Your task to perform on an android device: open app "Microsoft Authenticator" (install if not already installed) and go to login screen Image 0: 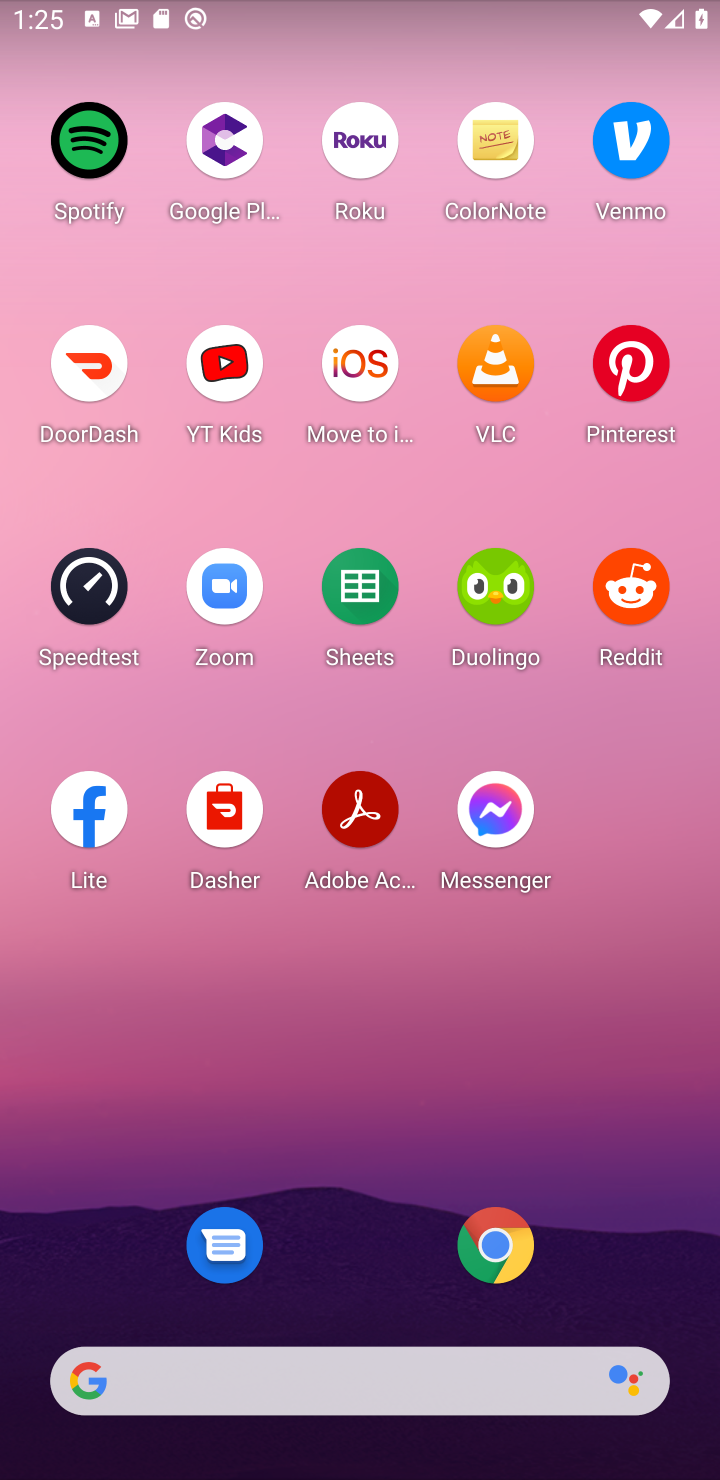
Step 0: press home button
Your task to perform on an android device: open app "Microsoft Authenticator" (install if not already installed) and go to login screen Image 1: 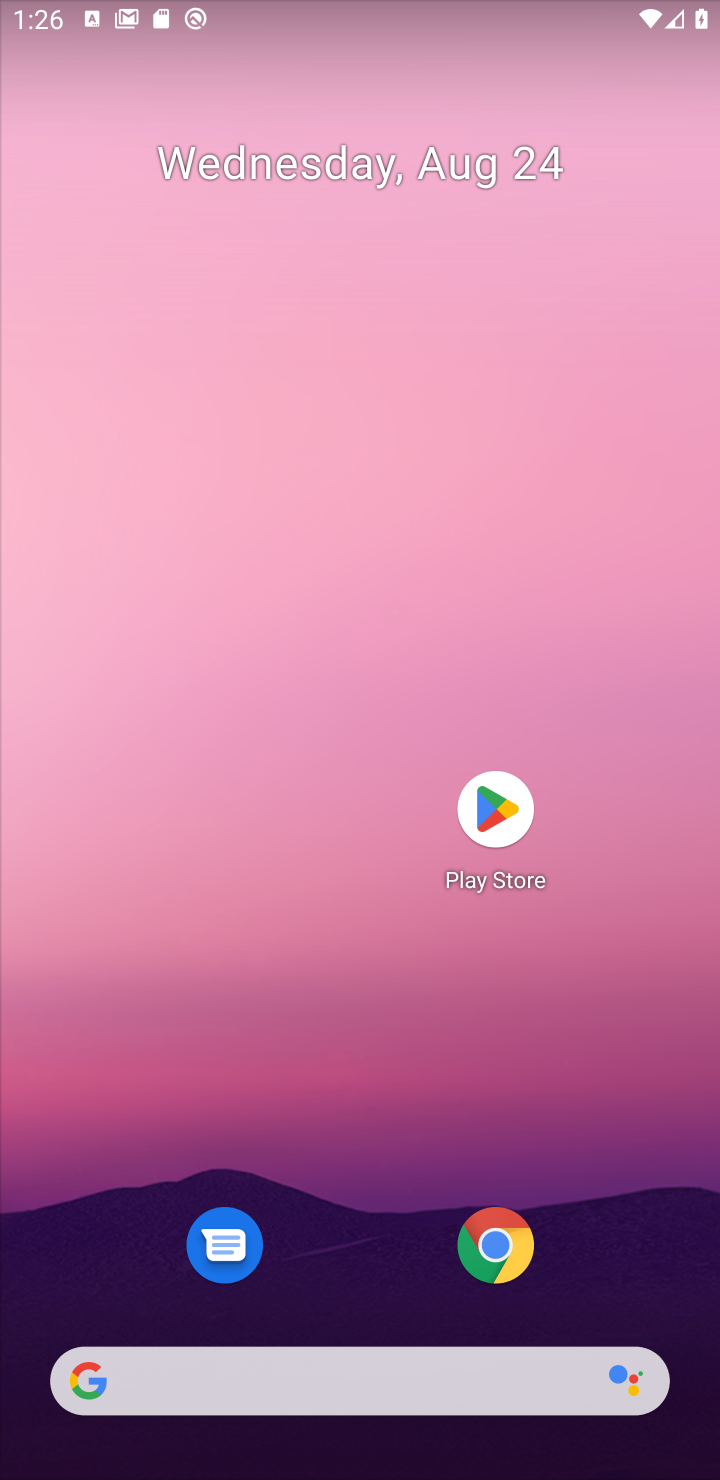
Step 1: click (495, 808)
Your task to perform on an android device: open app "Microsoft Authenticator" (install if not already installed) and go to login screen Image 2: 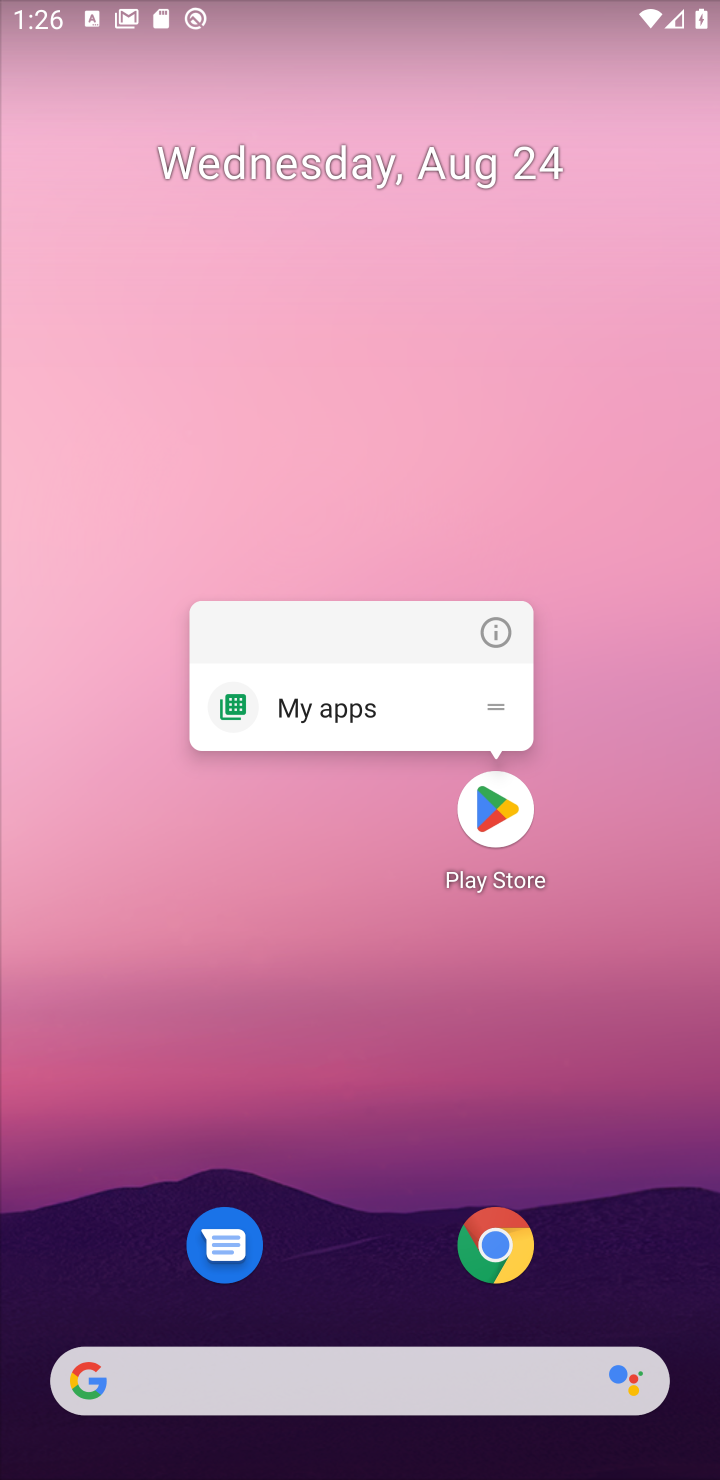
Step 2: click (495, 808)
Your task to perform on an android device: open app "Microsoft Authenticator" (install if not already installed) and go to login screen Image 3: 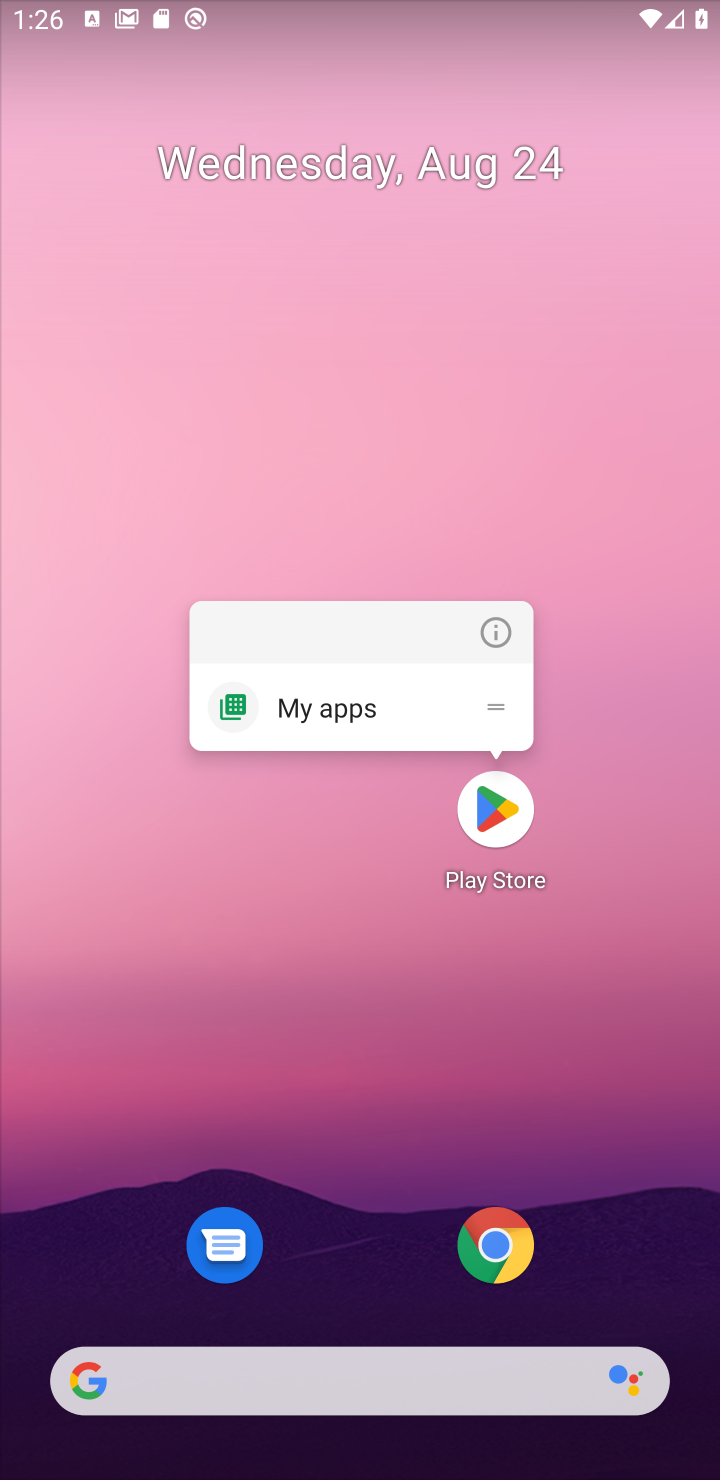
Step 3: click (495, 808)
Your task to perform on an android device: open app "Microsoft Authenticator" (install if not already installed) and go to login screen Image 4: 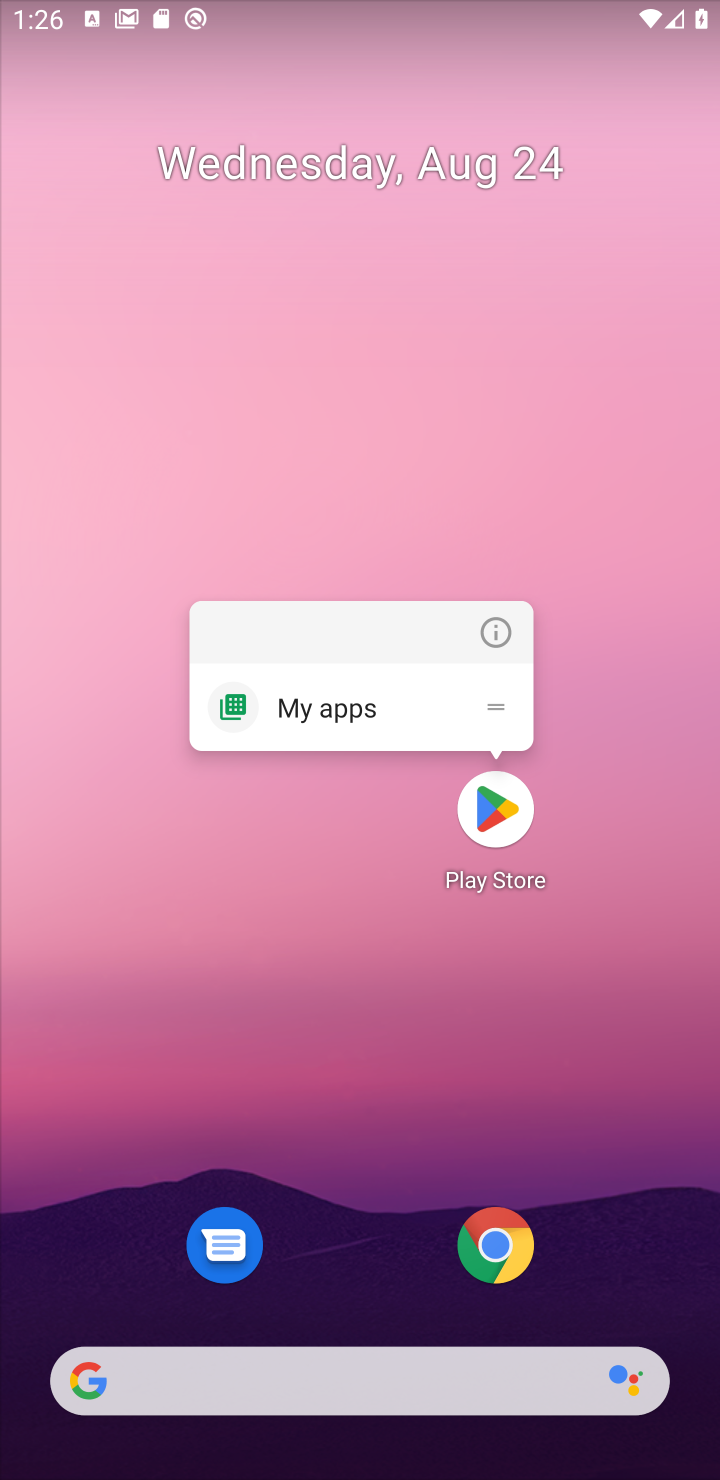
Step 4: click (495, 810)
Your task to perform on an android device: open app "Microsoft Authenticator" (install if not already installed) and go to login screen Image 5: 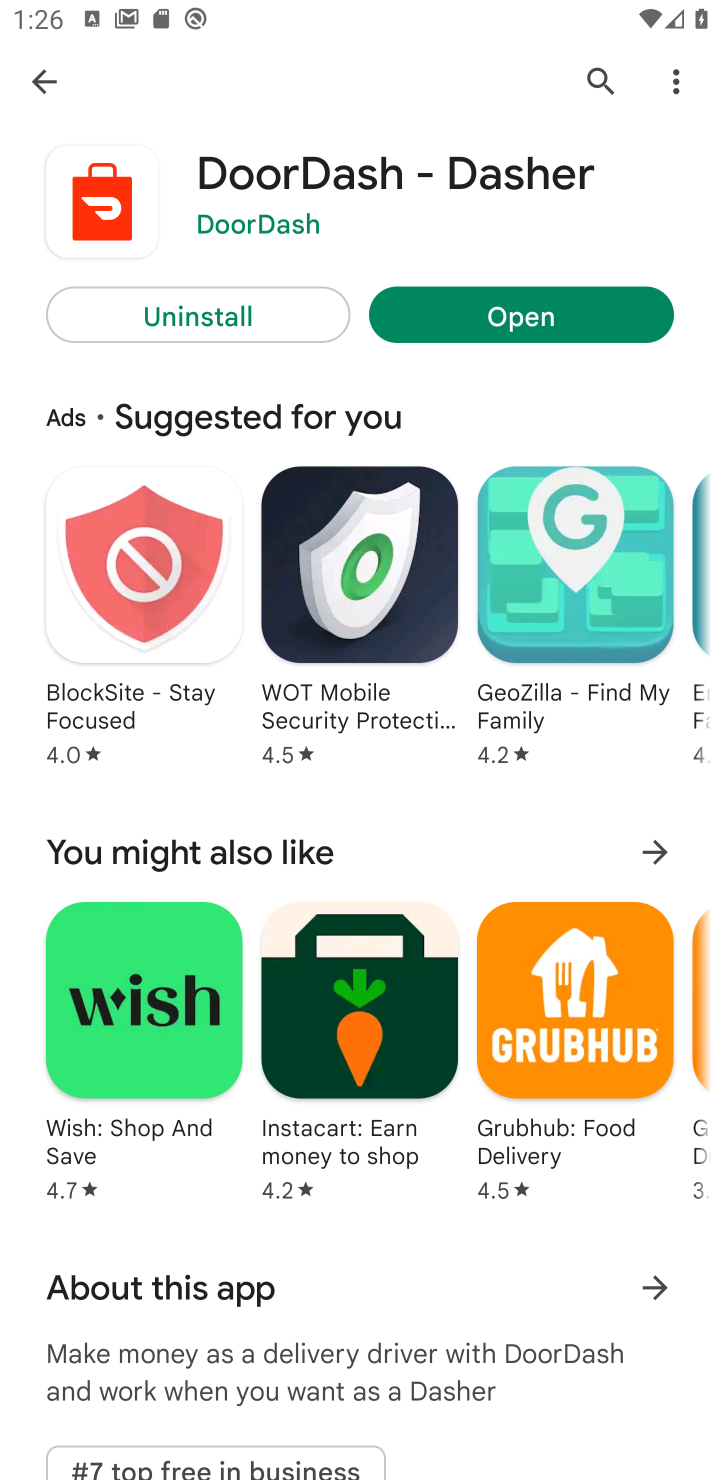
Step 5: click (592, 71)
Your task to perform on an android device: open app "Microsoft Authenticator" (install if not already installed) and go to login screen Image 6: 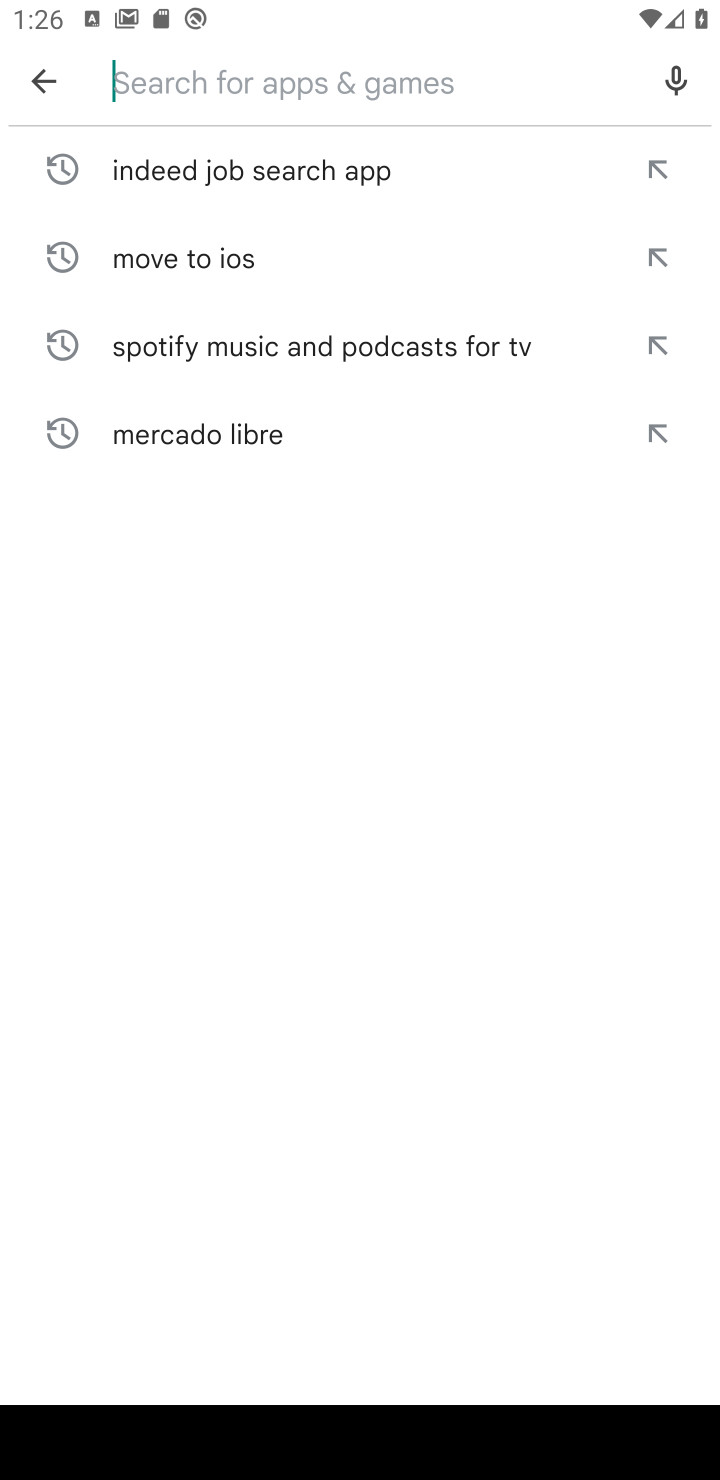
Step 6: type "Microsoft Authenticator"
Your task to perform on an android device: open app "Microsoft Authenticator" (install if not already installed) and go to login screen Image 7: 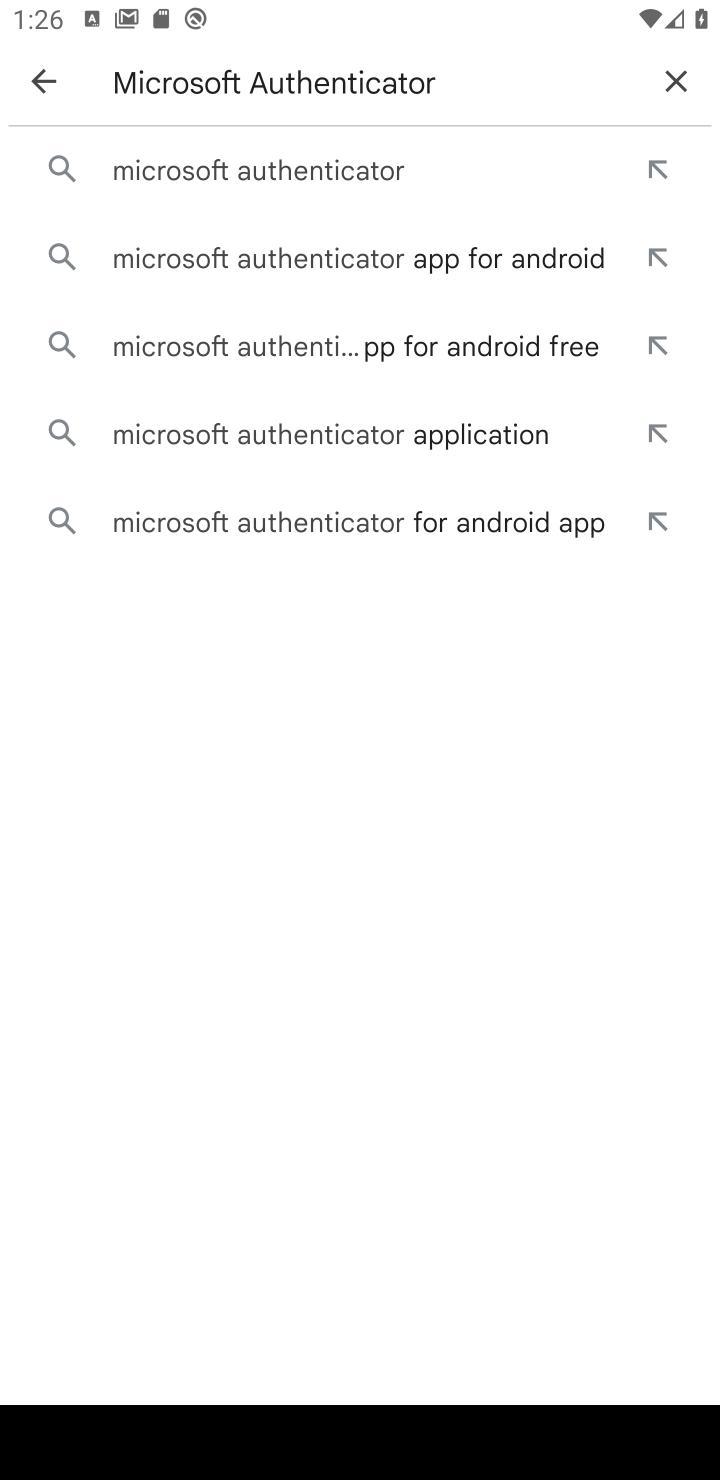
Step 7: click (250, 170)
Your task to perform on an android device: open app "Microsoft Authenticator" (install if not already installed) and go to login screen Image 8: 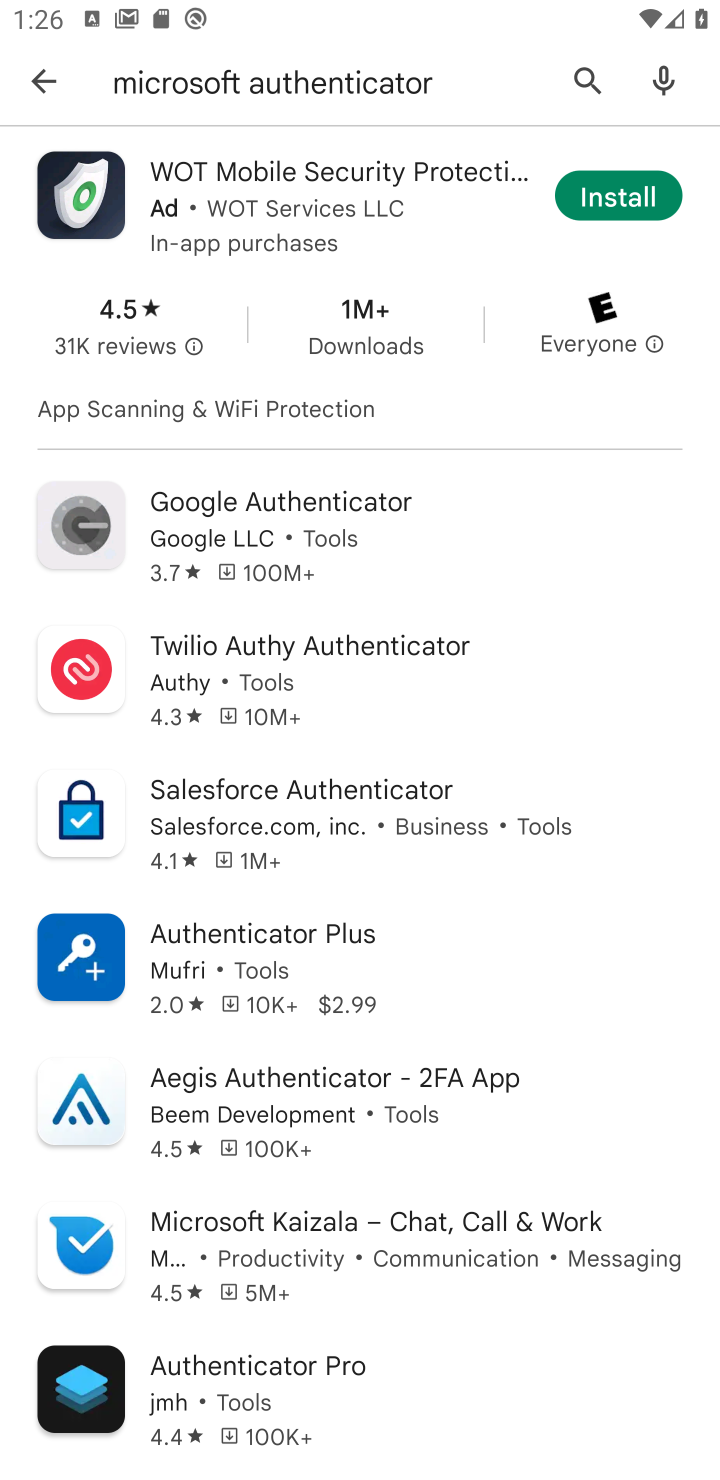
Step 8: task complete